Your task to perform on an android device: Open Wikipedia Image 0: 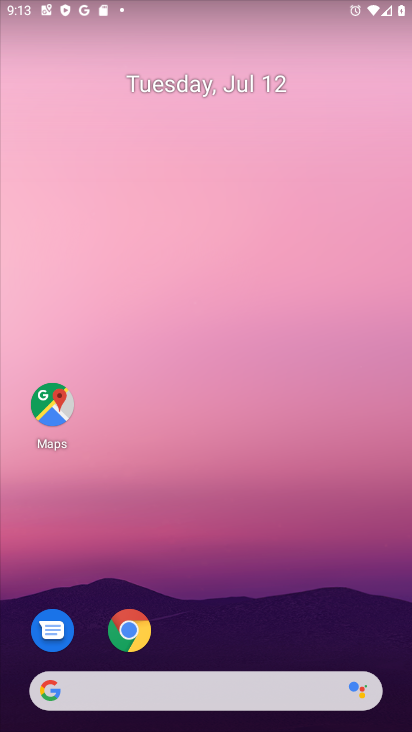
Step 0: click (131, 631)
Your task to perform on an android device: Open Wikipedia Image 1: 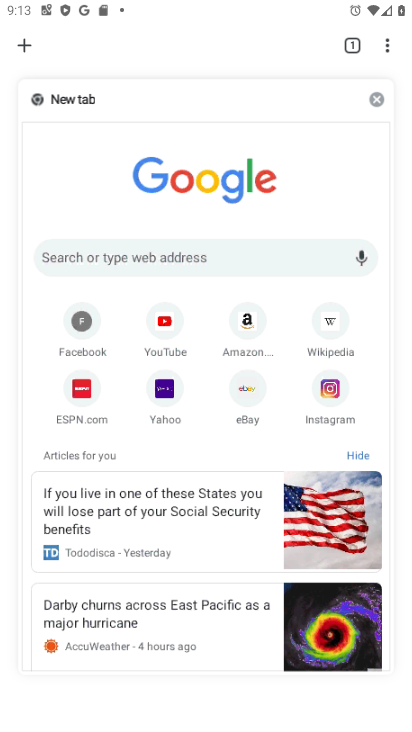
Step 1: click (328, 322)
Your task to perform on an android device: Open Wikipedia Image 2: 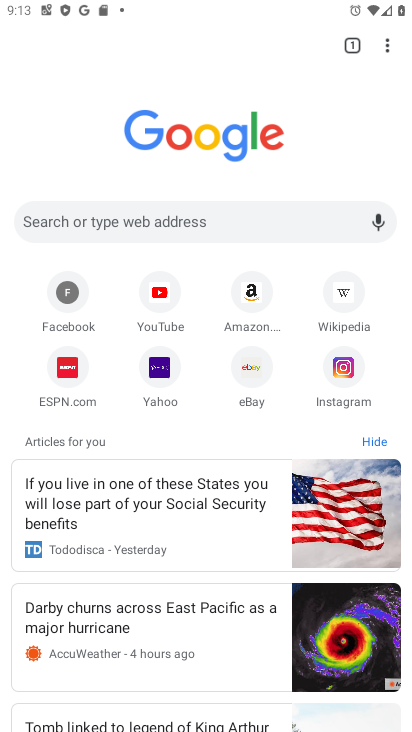
Step 2: click (345, 288)
Your task to perform on an android device: Open Wikipedia Image 3: 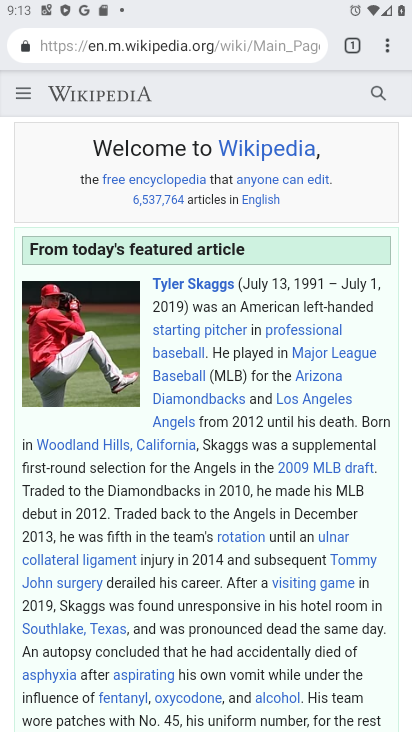
Step 3: task complete